Your task to perform on an android device: find photos in the google photos app Image 0: 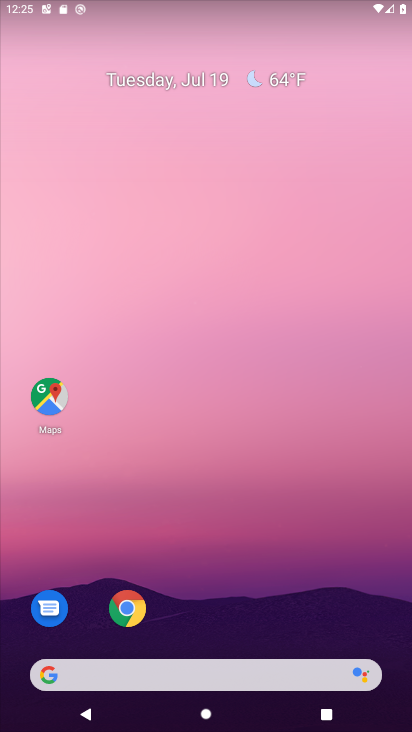
Step 0: drag from (189, 633) to (326, 72)
Your task to perform on an android device: find photos in the google photos app Image 1: 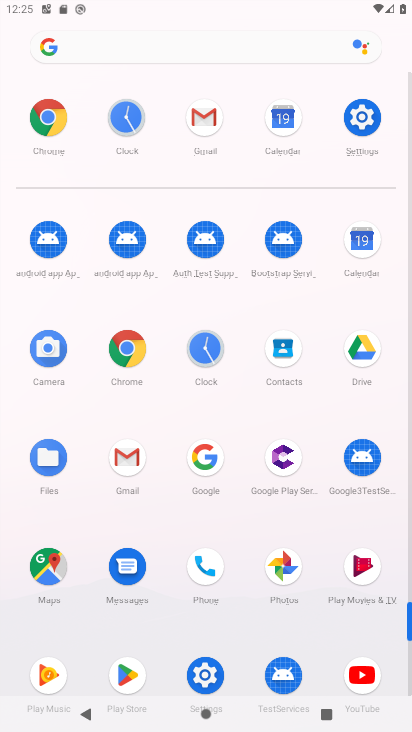
Step 1: click (287, 578)
Your task to perform on an android device: find photos in the google photos app Image 2: 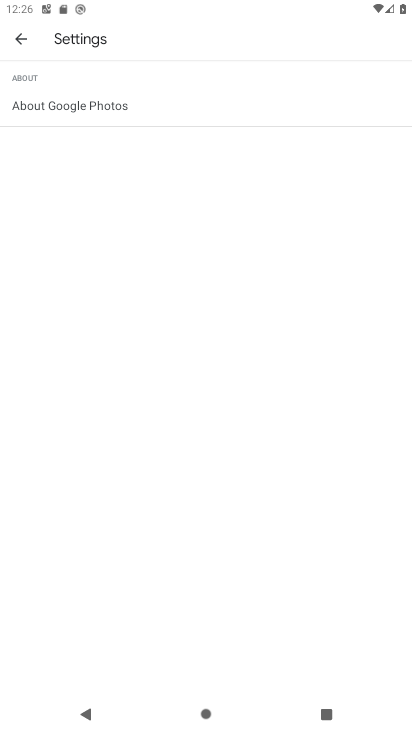
Step 2: click (17, 42)
Your task to perform on an android device: find photos in the google photos app Image 3: 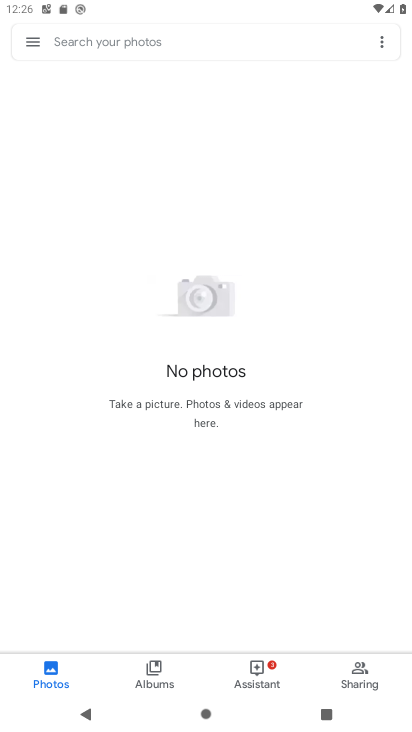
Step 3: click (152, 680)
Your task to perform on an android device: find photos in the google photos app Image 4: 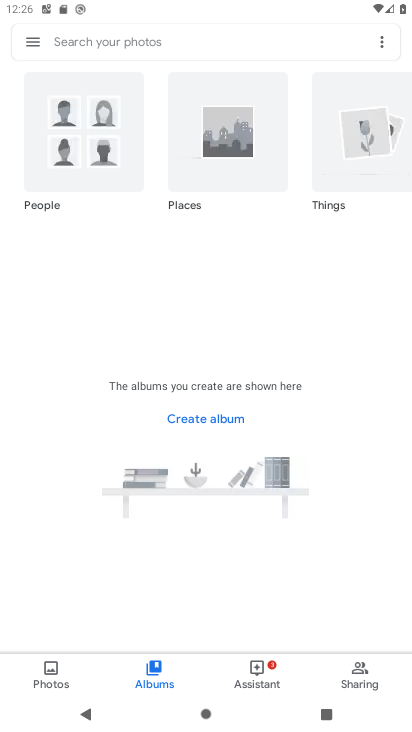
Step 4: task complete